Your task to perform on an android device: change notifications settings Image 0: 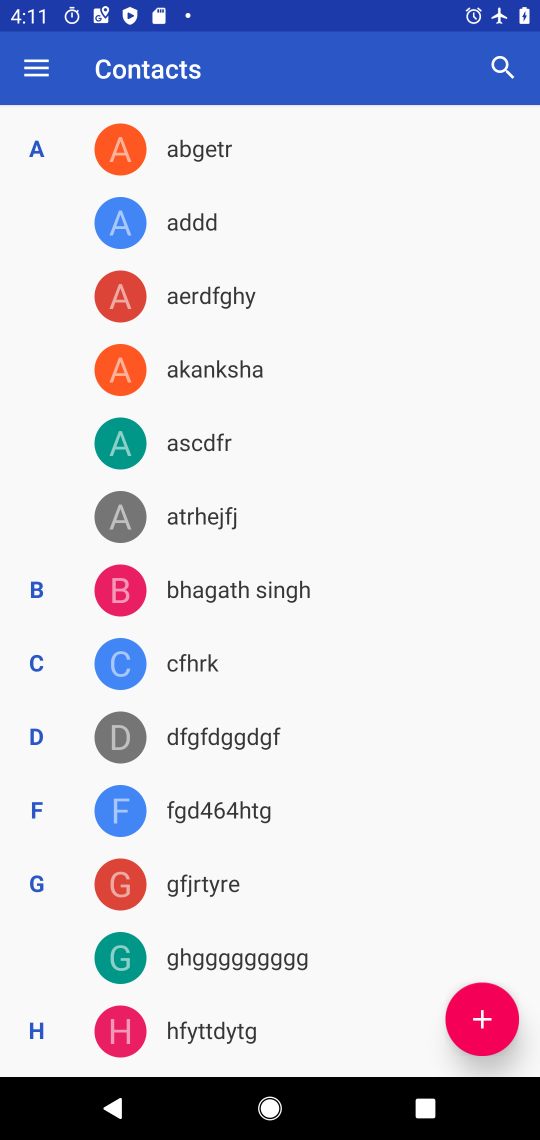
Step 0: press home button
Your task to perform on an android device: change notifications settings Image 1: 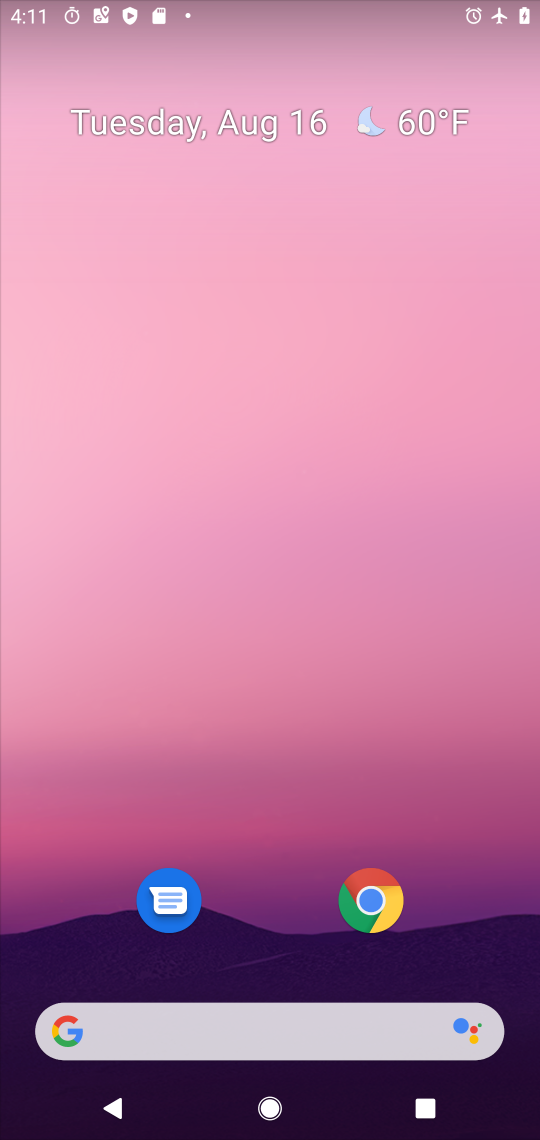
Step 1: drag from (256, 980) to (222, 114)
Your task to perform on an android device: change notifications settings Image 2: 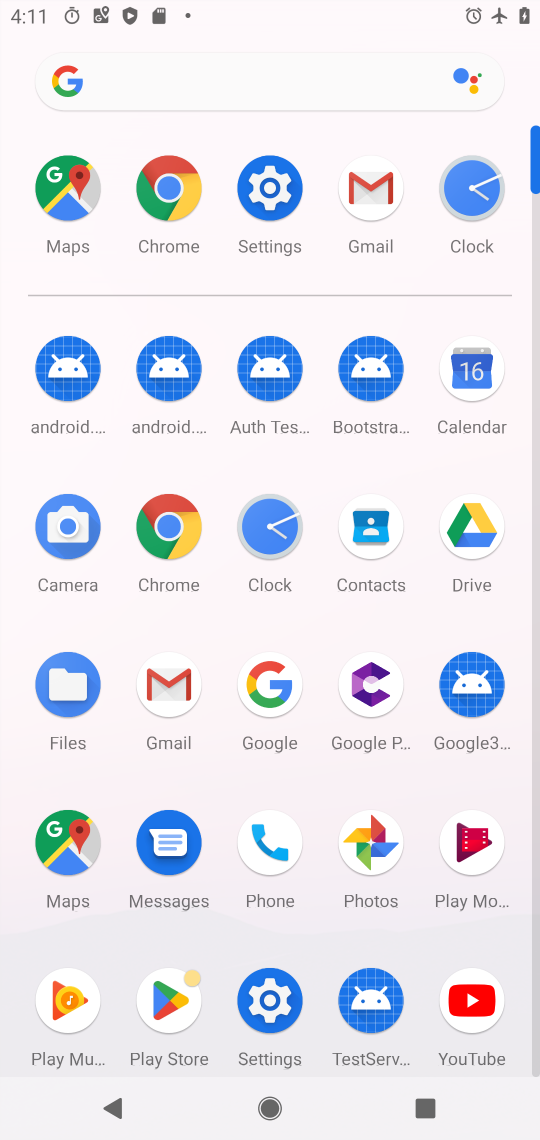
Step 2: click (273, 180)
Your task to perform on an android device: change notifications settings Image 3: 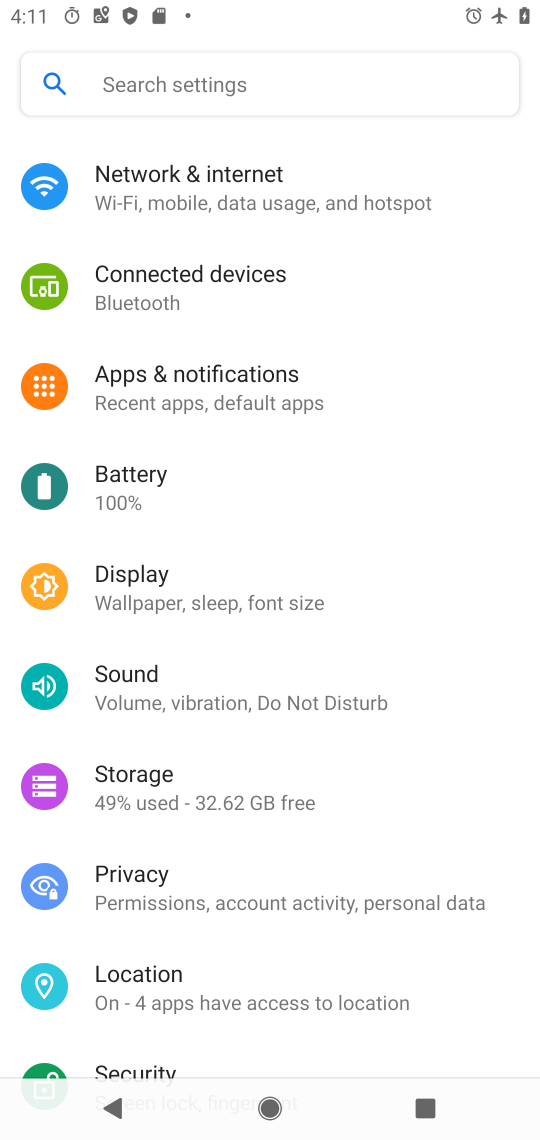
Step 3: click (209, 378)
Your task to perform on an android device: change notifications settings Image 4: 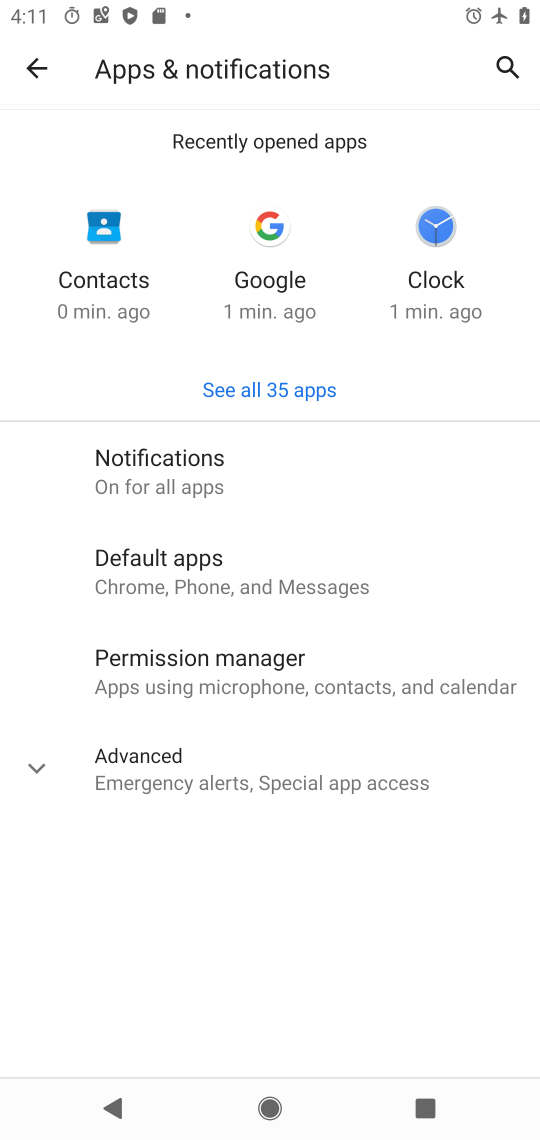
Step 4: click (162, 465)
Your task to perform on an android device: change notifications settings Image 5: 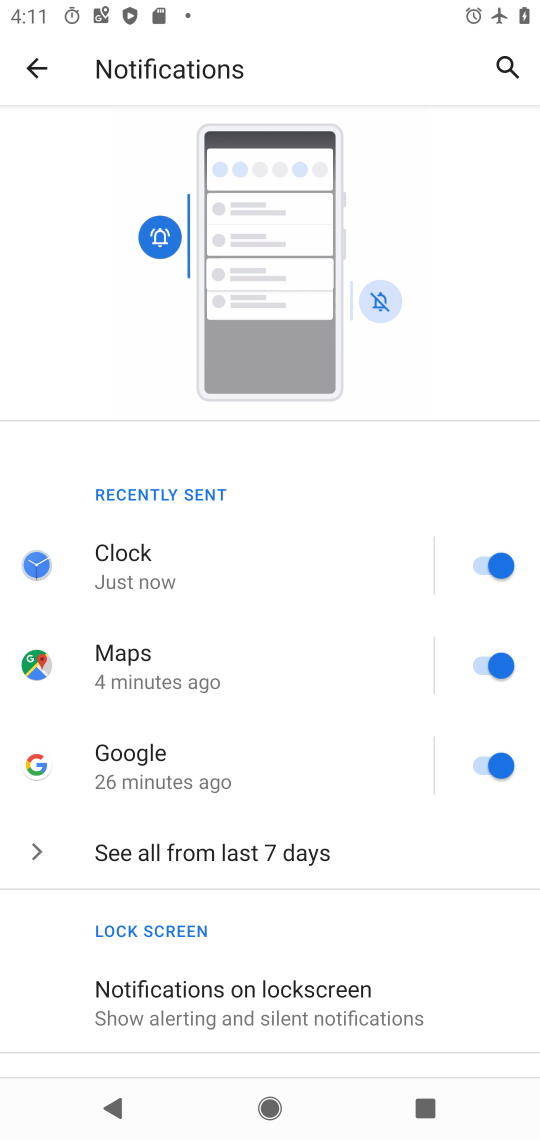
Step 5: drag from (211, 966) to (150, 474)
Your task to perform on an android device: change notifications settings Image 6: 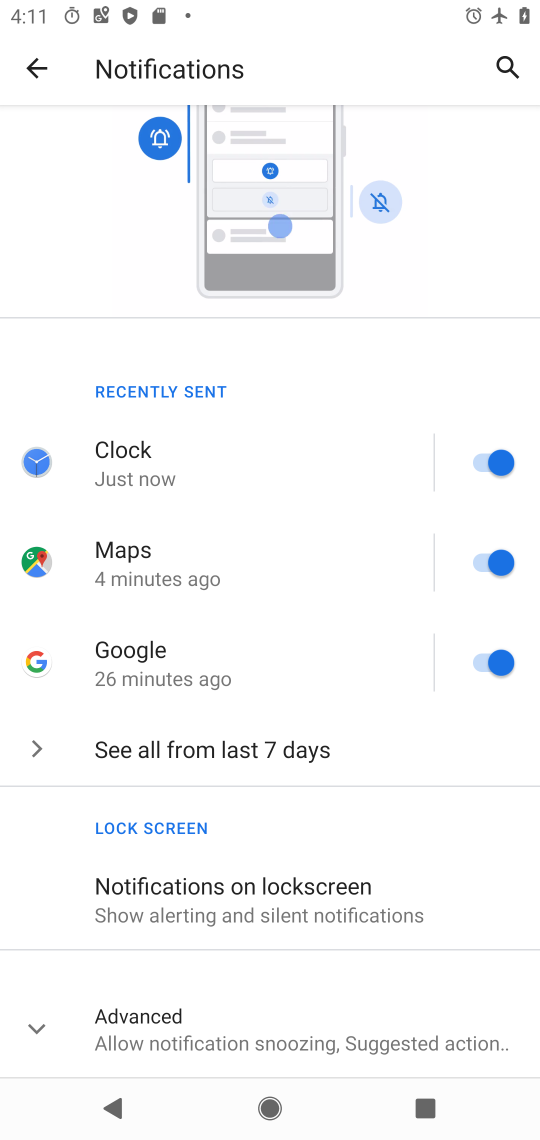
Step 6: click (245, 1032)
Your task to perform on an android device: change notifications settings Image 7: 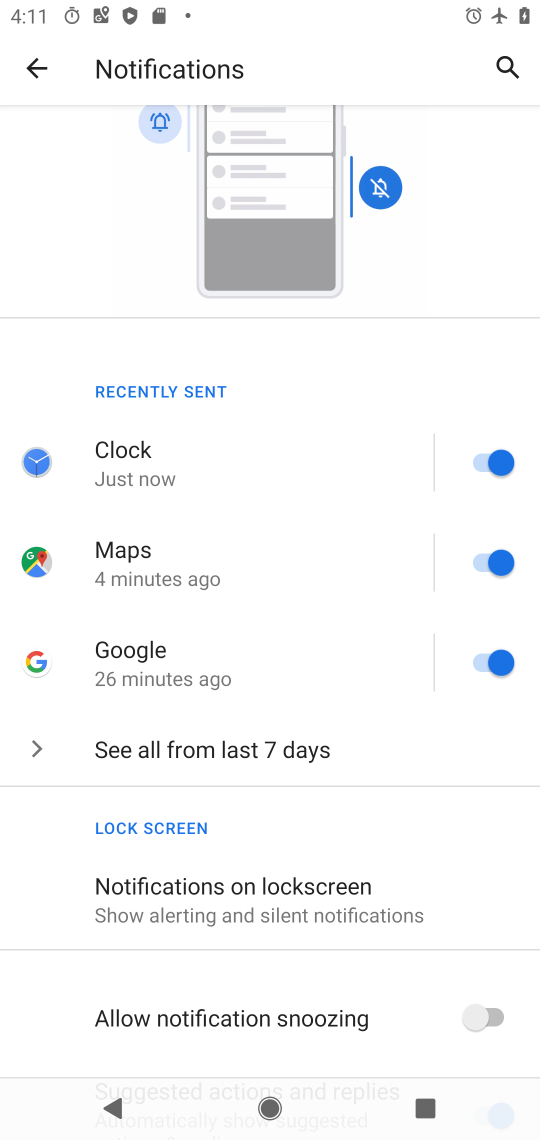
Step 7: click (504, 1009)
Your task to perform on an android device: change notifications settings Image 8: 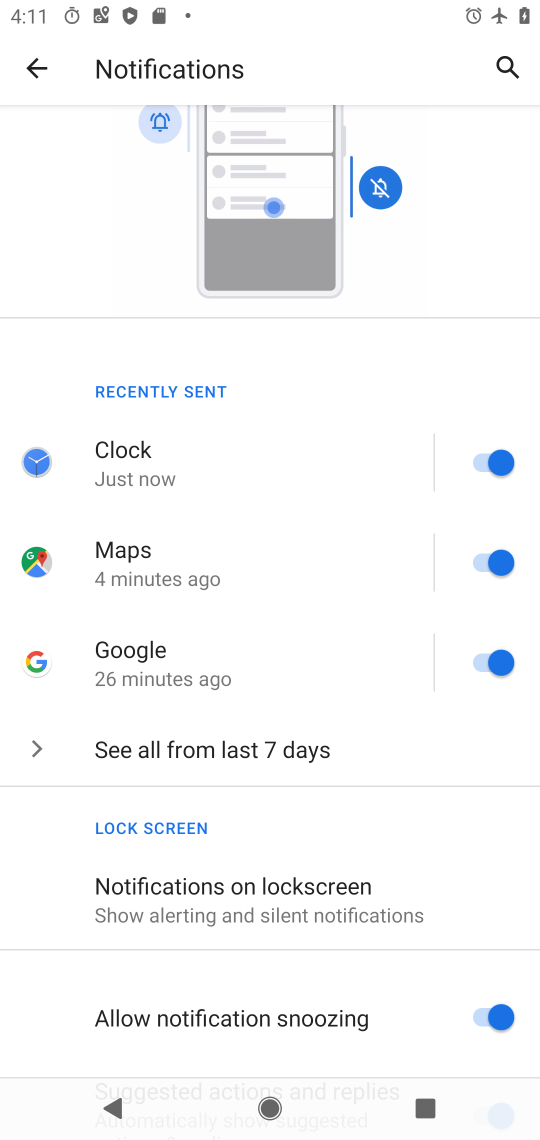
Step 8: task complete